Your task to perform on an android device: allow cookies in the chrome app Image 0: 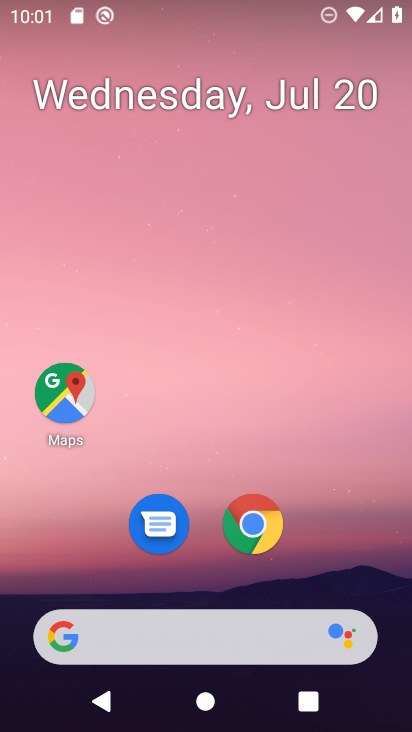
Step 0: press home button
Your task to perform on an android device: allow cookies in the chrome app Image 1: 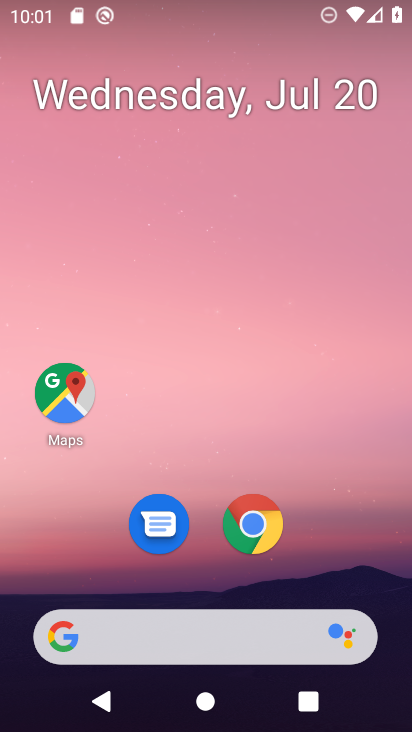
Step 1: click (262, 516)
Your task to perform on an android device: allow cookies in the chrome app Image 2: 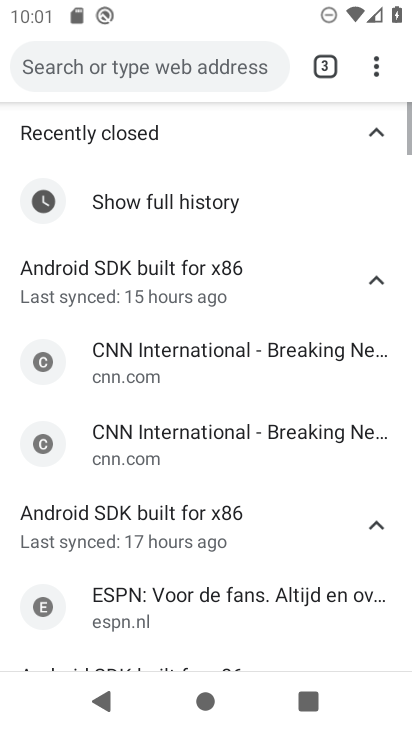
Step 2: drag from (383, 67) to (199, 559)
Your task to perform on an android device: allow cookies in the chrome app Image 3: 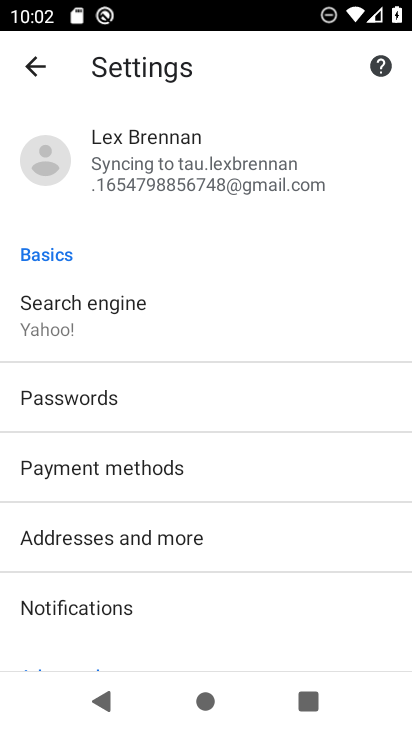
Step 3: drag from (193, 522) to (257, 134)
Your task to perform on an android device: allow cookies in the chrome app Image 4: 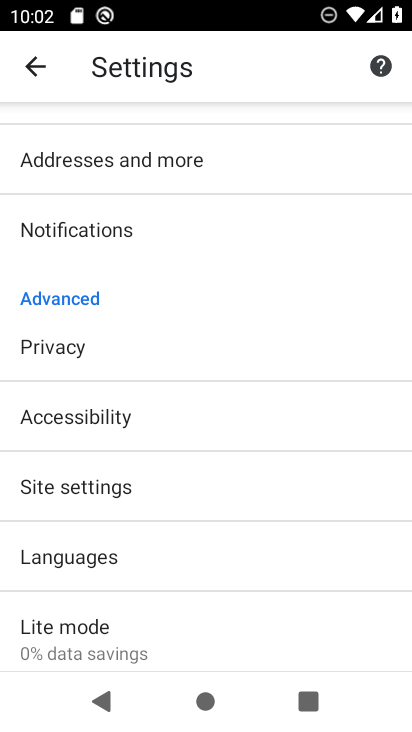
Step 4: click (134, 495)
Your task to perform on an android device: allow cookies in the chrome app Image 5: 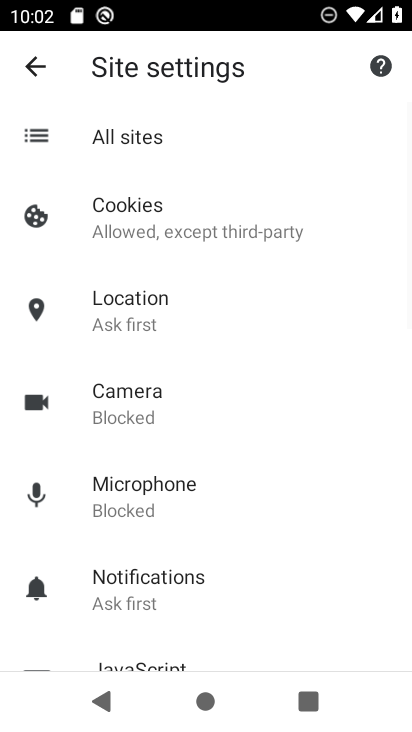
Step 5: click (177, 230)
Your task to perform on an android device: allow cookies in the chrome app Image 6: 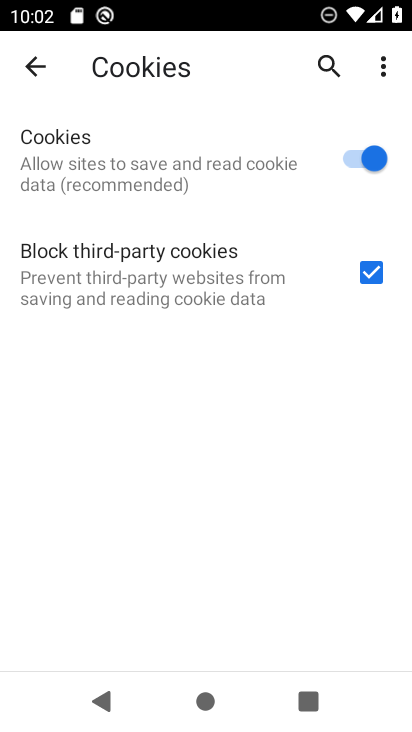
Step 6: task complete